Your task to perform on an android device: Open notification settings Image 0: 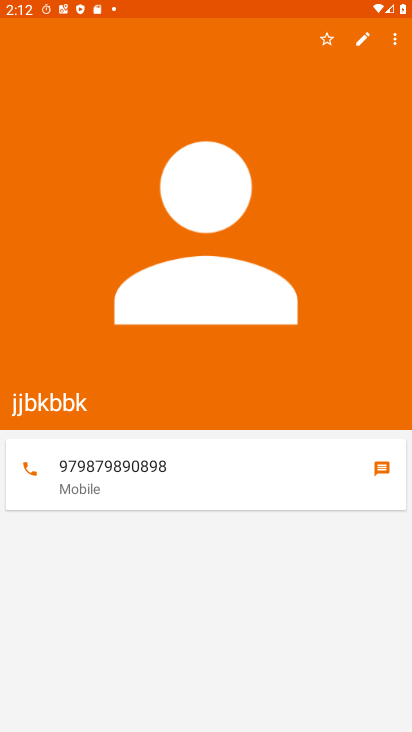
Step 0: press home button
Your task to perform on an android device: Open notification settings Image 1: 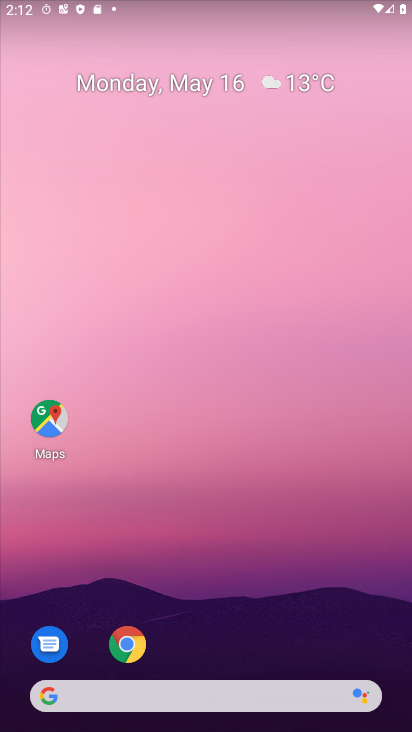
Step 1: drag from (223, 670) to (208, 131)
Your task to perform on an android device: Open notification settings Image 2: 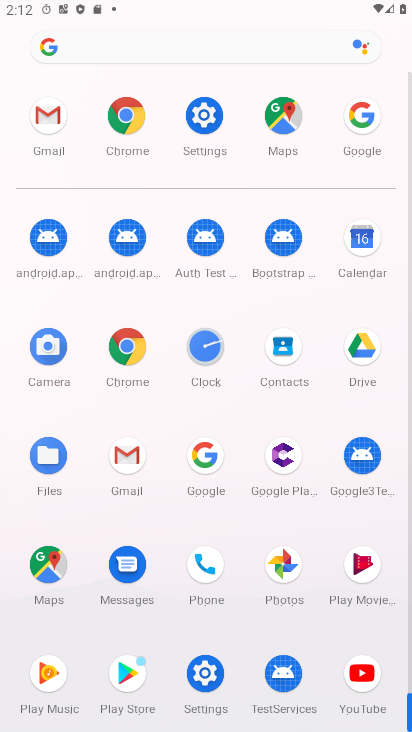
Step 2: click (217, 156)
Your task to perform on an android device: Open notification settings Image 3: 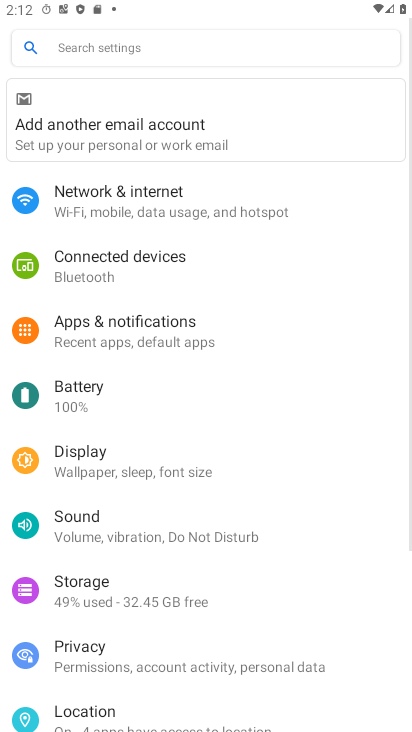
Step 3: drag from (234, 226) to (239, 439)
Your task to perform on an android device: Open notification settings Image 4: 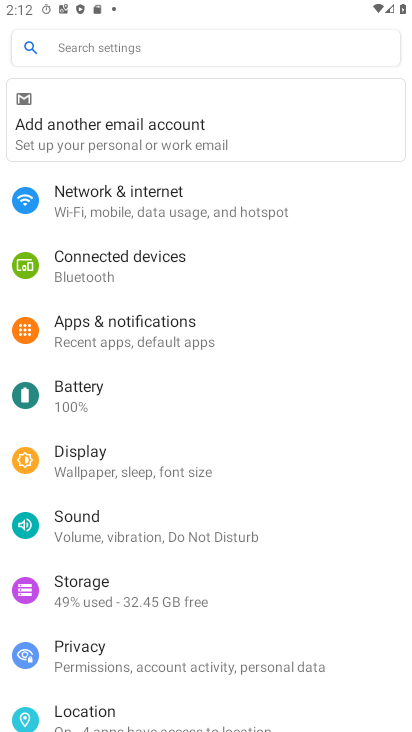
Step 4: drag from (121, 570) to (111, 604)
Your task to perform on an android device: Open notification settings Image 5: 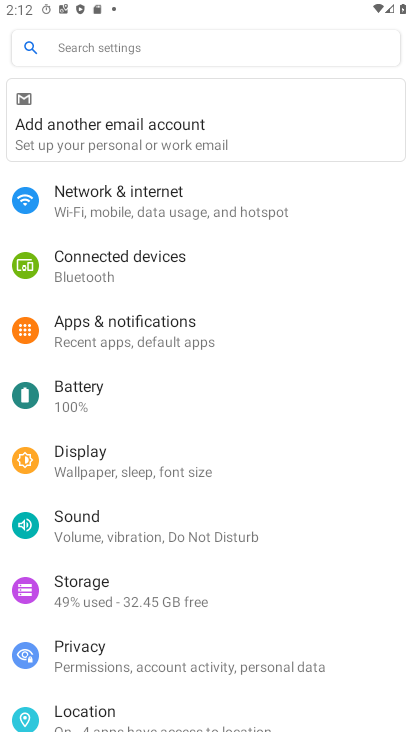
Step 5: click (167, 331)
Your task to perform on an android device: Open notification settings Image 6: 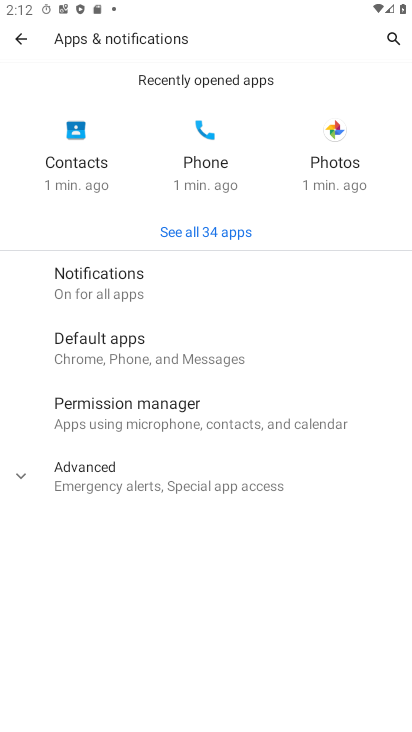
Step 6: click (165, 309)
Your task to perform on an android device: Open notification settings Image 7: 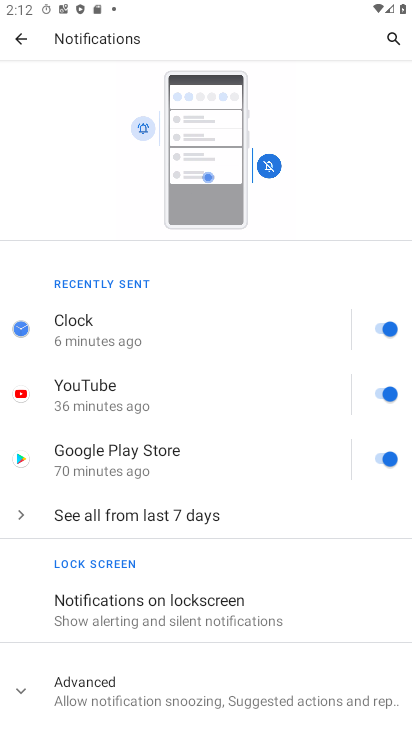
Step 7: task complete